Your task to perform on an android device: Open Yahoo.com Image 0: 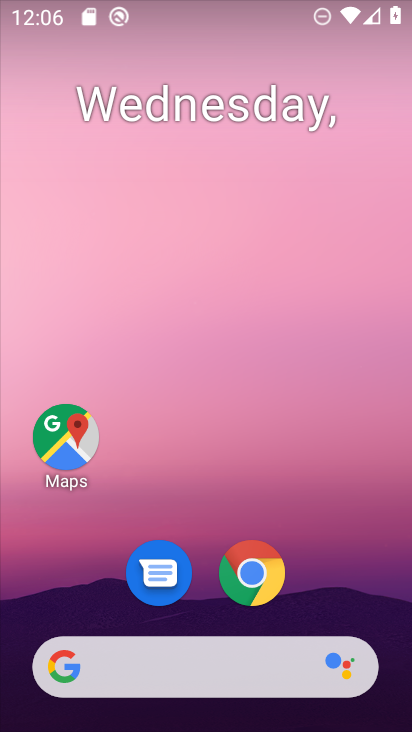
Step 0: drag from (331, 581) to (316, 123)
Your task to perform on an android device: Open Yahoo.com Image 1: 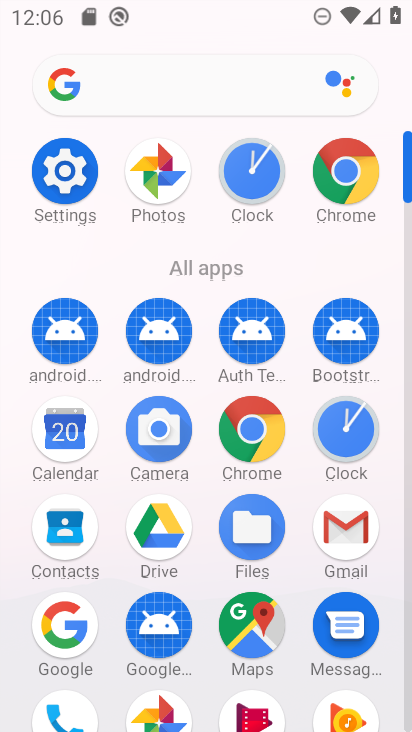
Step 1: click (346, 175)
Your task to perform on an android device: Open Yahoo.com Image 2: 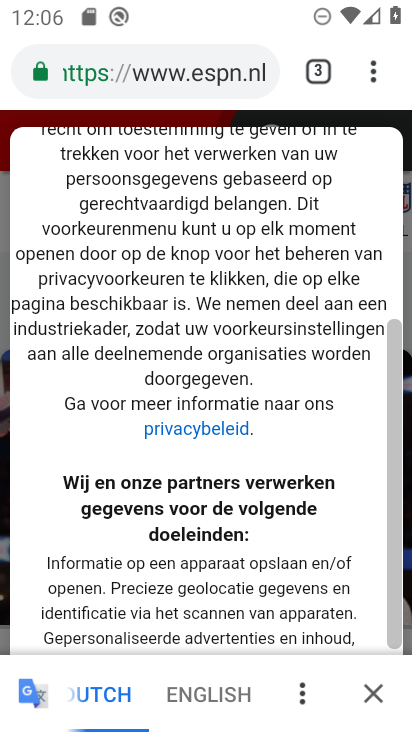
Step 2: click (217, 87)
Your task to perform on an android device: Open Yahoo.com Image 3: 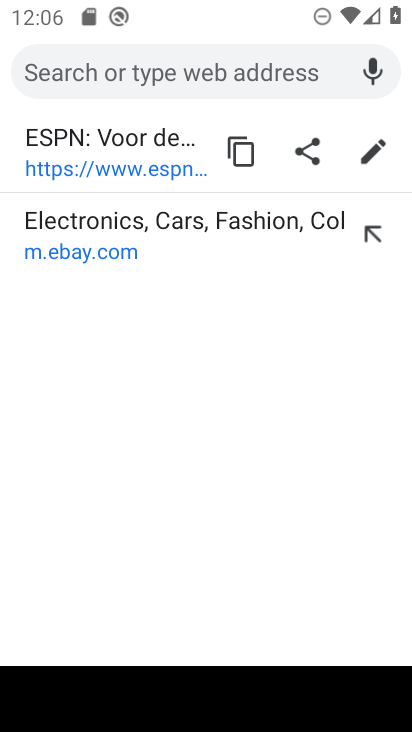
Step 3: type "yahoo.com"
Your task to perform on an android device: Open Yahoo.com Image 4: 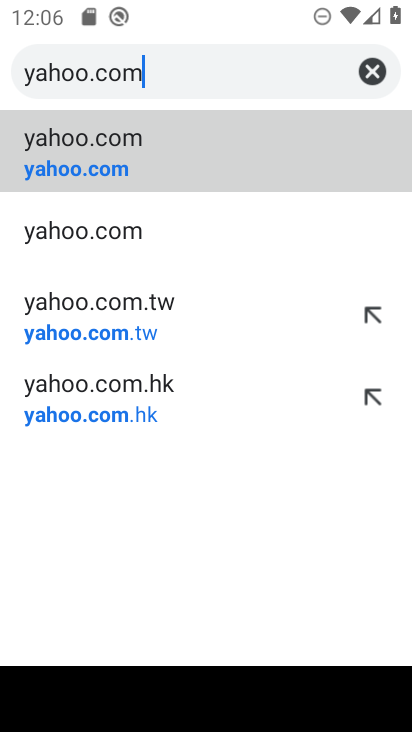
Step 4: click (100, 177)
Your task to perform on an android device: Open Yahoo.com Image 5: 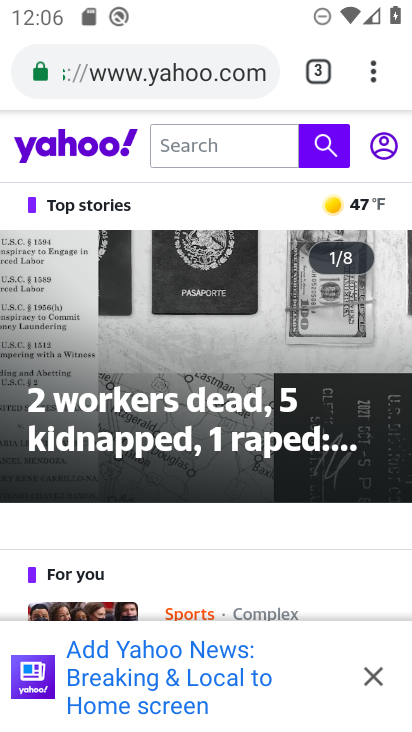
Step 5: task complete